Your task to perform on an android device: turn off translation in the chrome app Image 0: 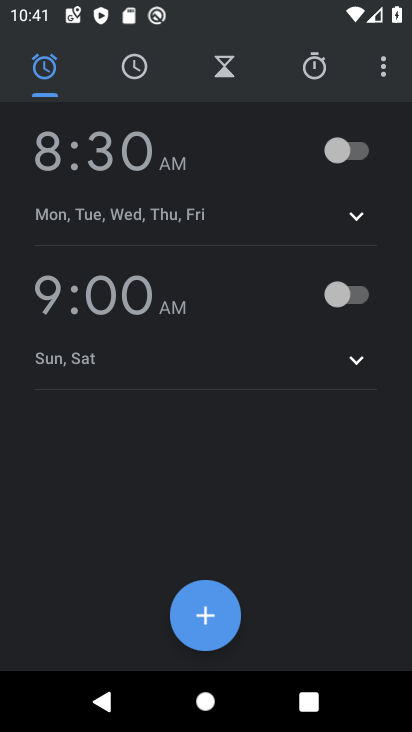
Step 0: press home button
Your task to perform on an android device: turn off translation in the chrome app Image 1: 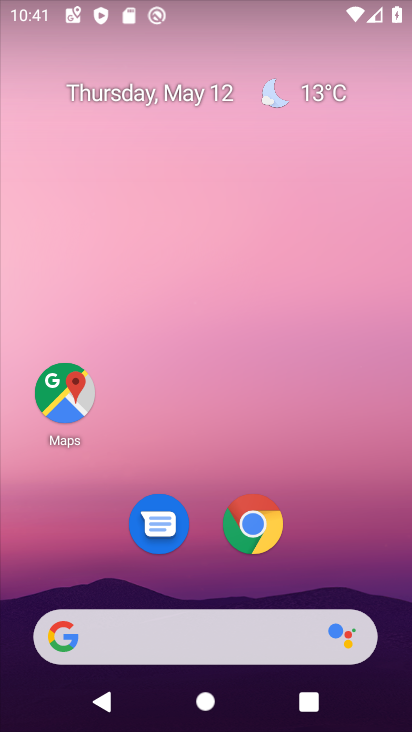
Step 1: click (258, 531)
Your task to perform on an android device: turn off translation in the chrome app Image 2: 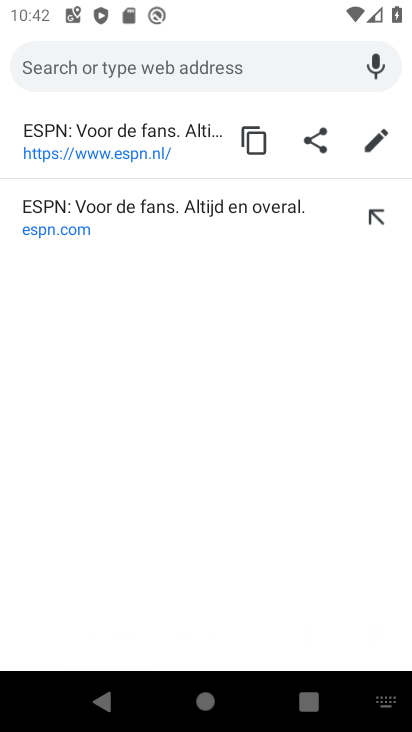
Step 2: press back button
Your task to perform on an android device: turn off translation in the chrome app Image 3: 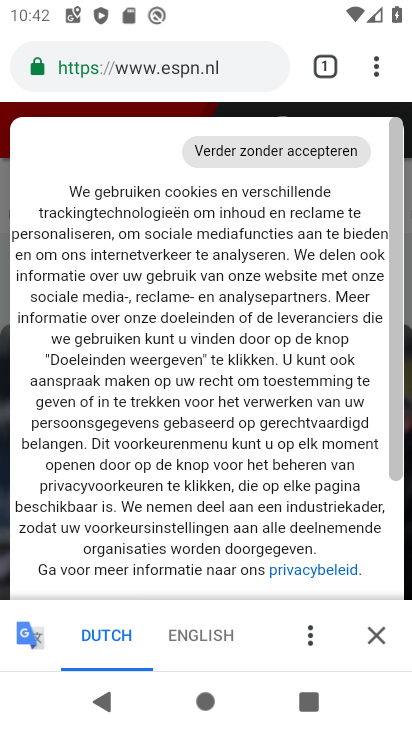
Step 3: click (374, 72)
Your task to perform on an android device: turn off translation in the chrome app Image 4: 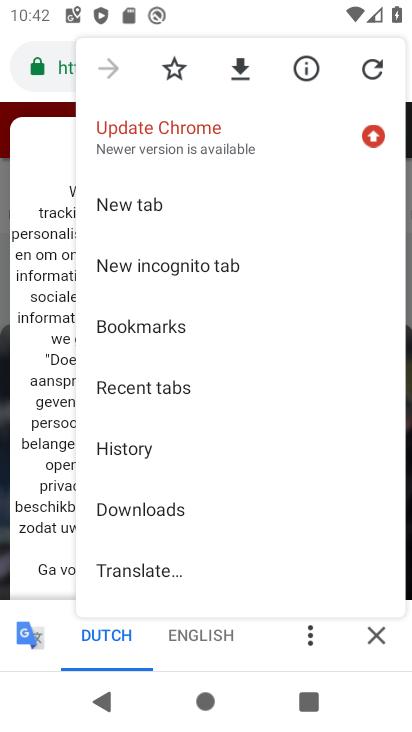
Step 4: drag from (229, 527) to (249, 96)
Your task to perform on an android device: turn off translation in the chrome app Image 5: 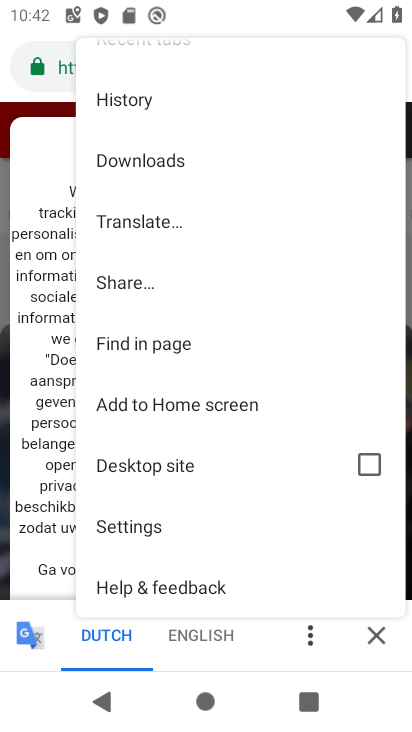
Step 5: click (192, 528)
Your task to perform on an android device: turn off translation in the chrome app Image 6: 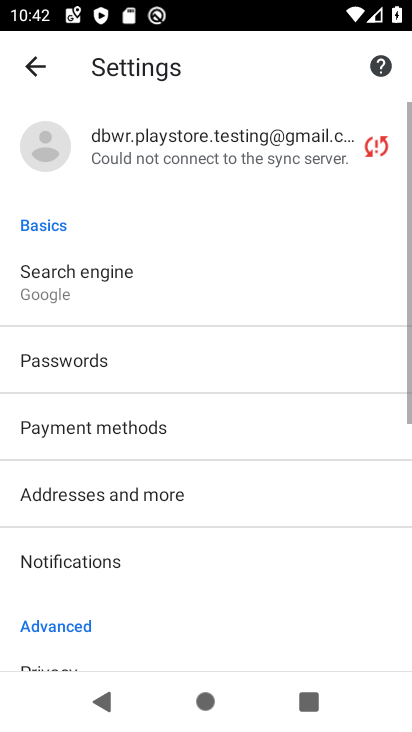
Step 6: drag from (219, 577) to (259, 216)
Your task to perform on an android device: turn off translation in the chrome app Image 7: 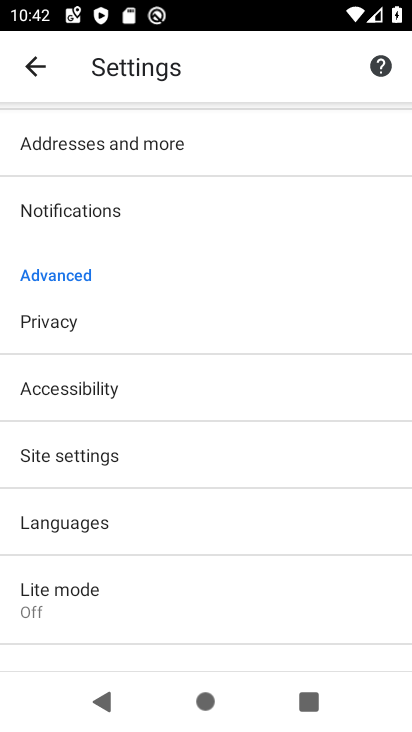
Step 7: click (202, 525)
Your task to perform on an android device: turn off translation in the chrome app Image 8: 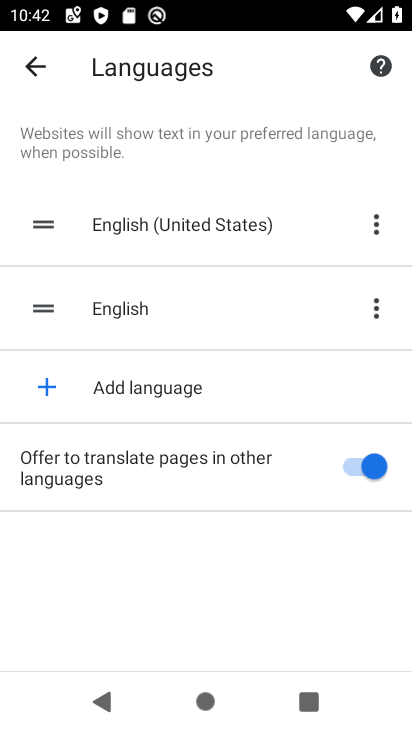
Step 8: click (119, 519)
Your task to perform on an android device: turn off translation in the chrome app Image 9: 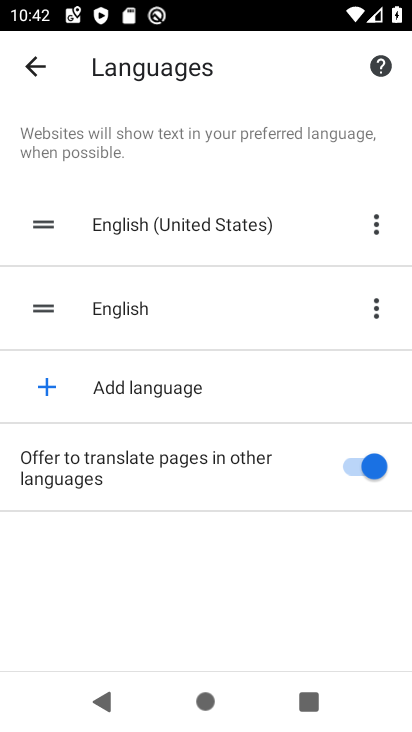
Step 9: click (357, 460)
Your task to perform on an android device: turn off translation in the chrome app Image 10: 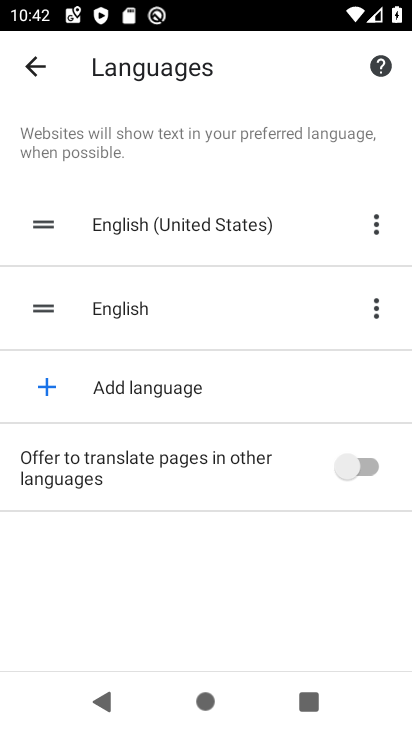
Step 10: task complete